Your task to perform on an android device: open device folders in google photos Image 0: 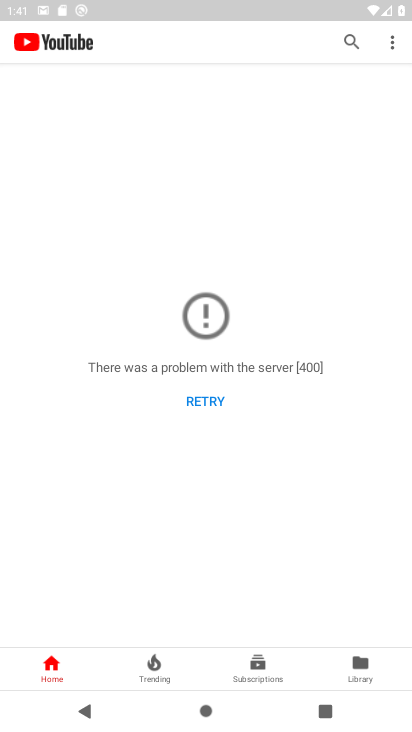
Step 0: press home button
Your task to perform on an android device: open device folders in google photos Image 1: 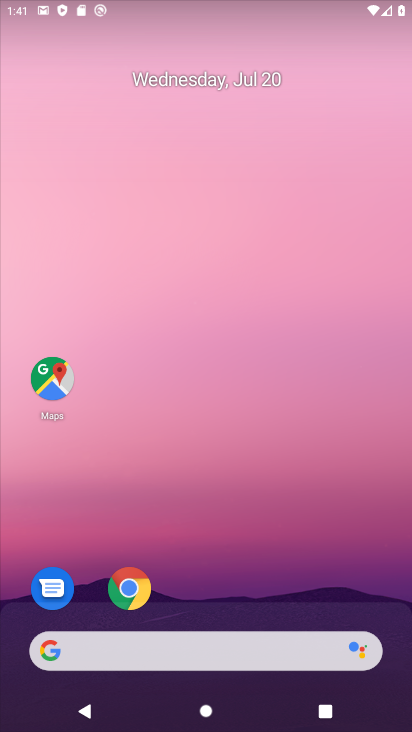
Step 1: drag from (262, 390) to (271, 12)
Your task to perform on an android device: open device folders in google photos Image 2: 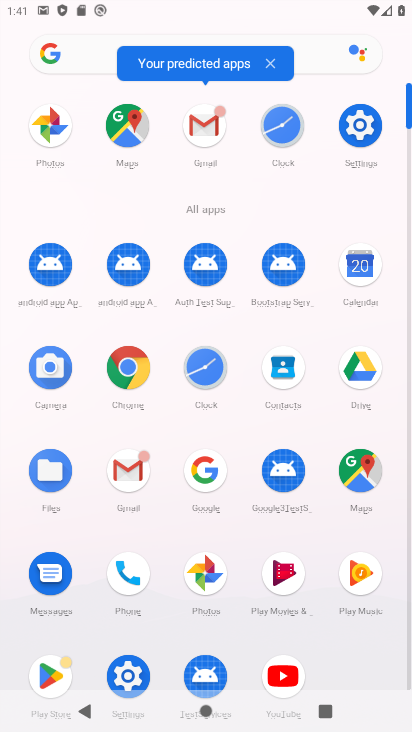
Step 2: click (211, 572)
Your task to perform on an android device: open device folders in google photos Image 3: 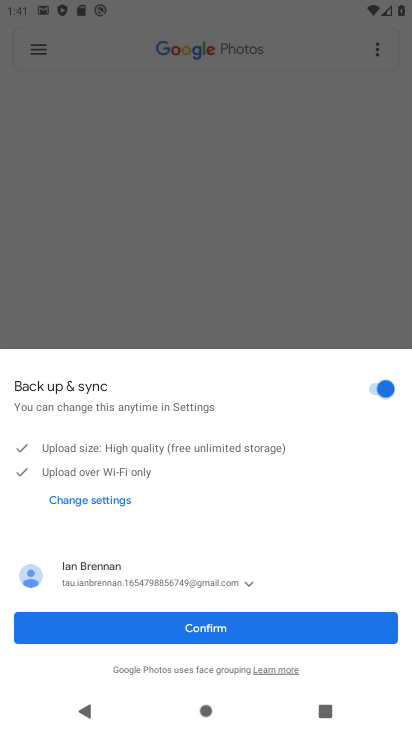
Step 3: click (163, 622)
Your task to perform on an android device: open device folders in google photos Image 4: 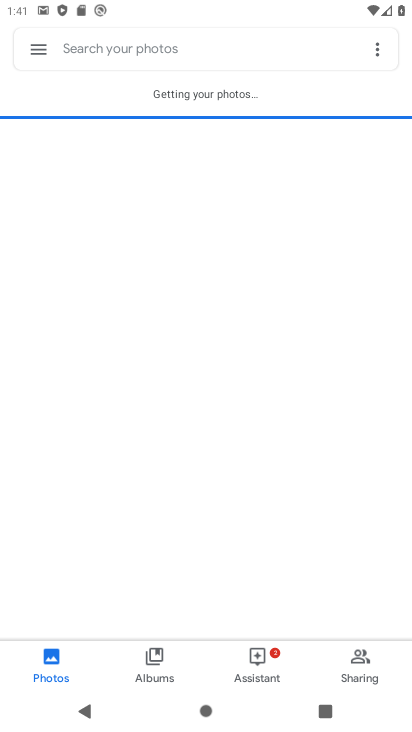
Step 4: click (38, 47)
Your task to perform on an android device: open device folders in google photos Image 5: 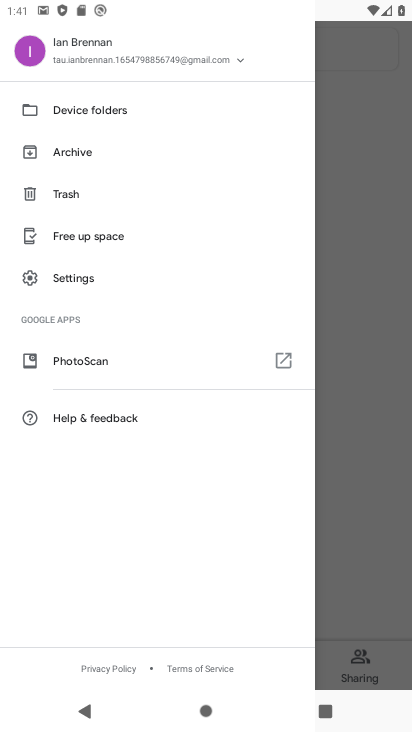
Step 5: click (102, 114)
Your task to perform on an android device: open device folders in google photos Image 6: 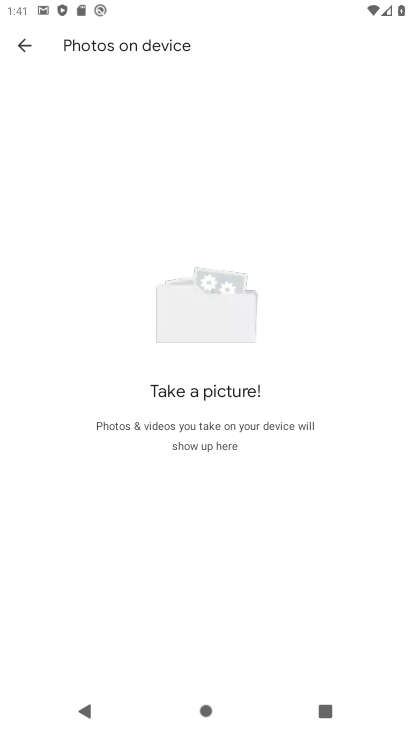
Step 6: task complete